Your task to perform on an android device: toggle show notifications on the lock screen Image 0: 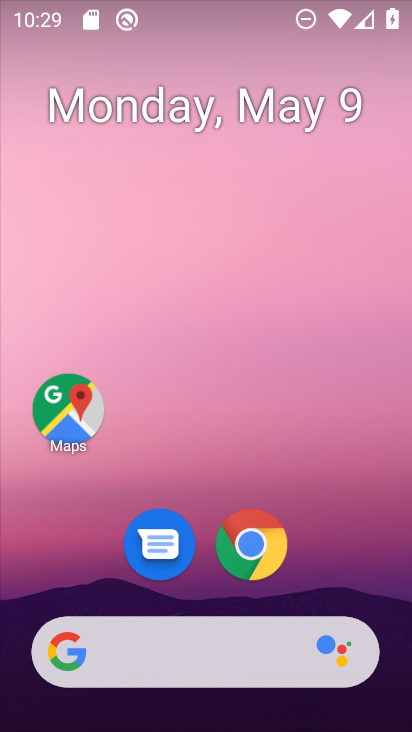
Step 0: drag from (331, 557) to (235, 209)
Your task to perform on an android device: toggle show notifications on the lock screen Image 1: 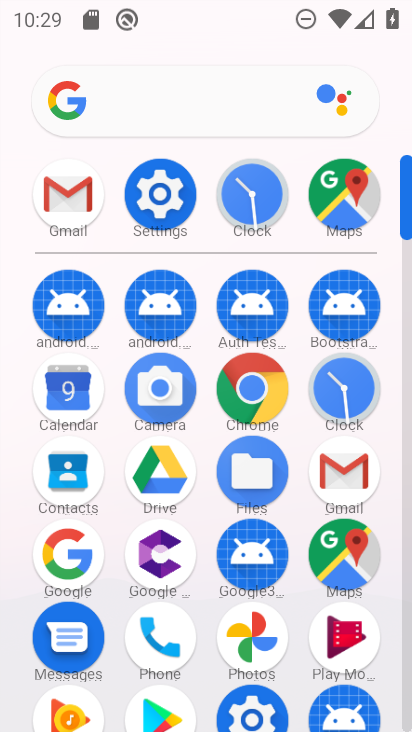
Step 1: click (169, 190)
Your task to perform on an android device: toggle show notifications on the lock screen Image 2: 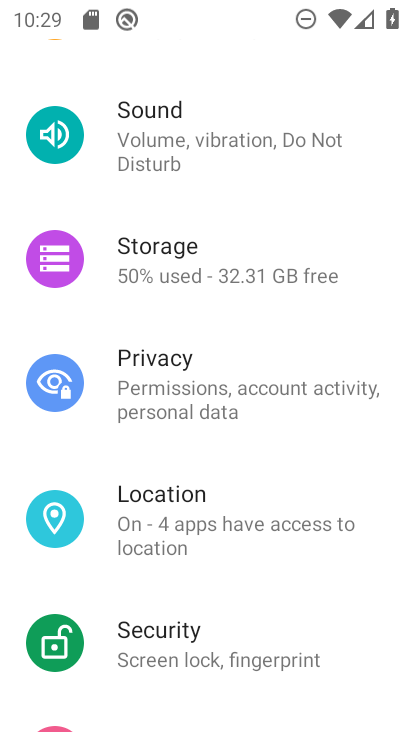
Step 2: drag from (199, 210) to (199, 724)
Your task to perform on an android device: toggle show notifications on the lock screen Image 3: 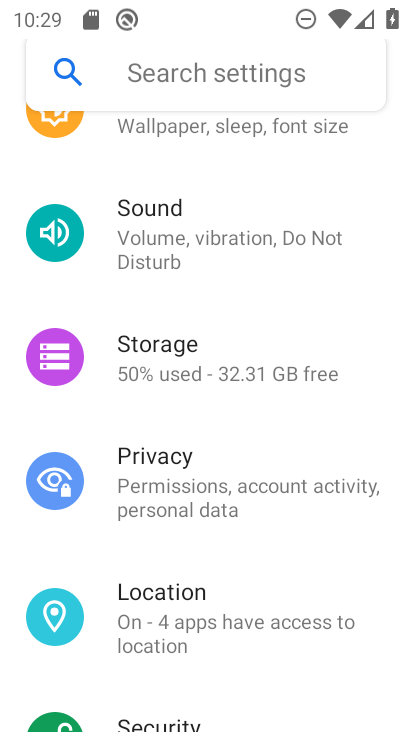
Step 3: drag from (165, 290) to (212, 687)
Your task to perform on an android device: toggle show notifications on the lock screen Image 4: 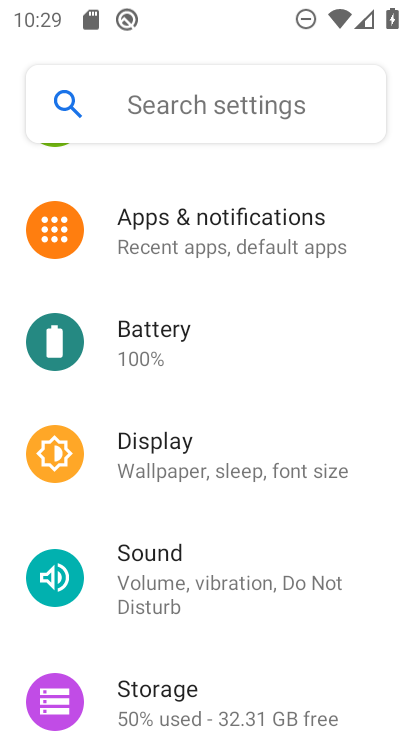
Step 4: click (220, 219)
Your task to perform on an android device: toggle show notifications on the lock screen Image 5: 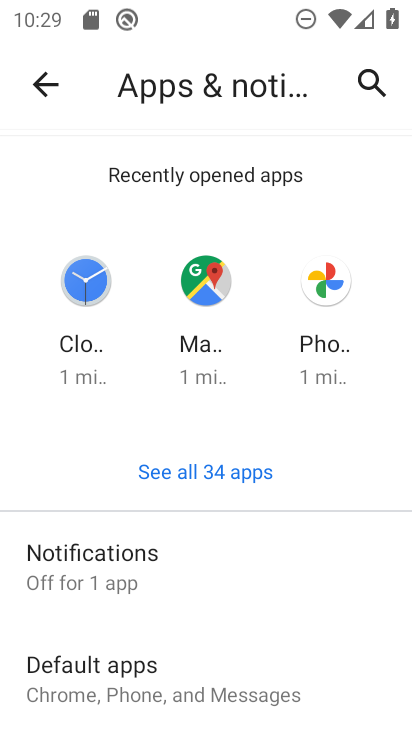
Step 5: click (101, 547)
Your task to perform on an android device: toggle show notifications on the lock screen Image 6: 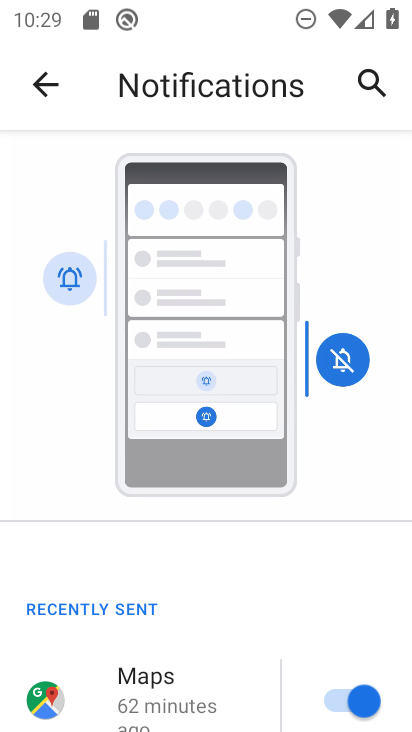
Step 6: drag from (268, 561) to (220, 273)
Your task to perform on an android device: toggle show notifications on the lock screen Image 7: 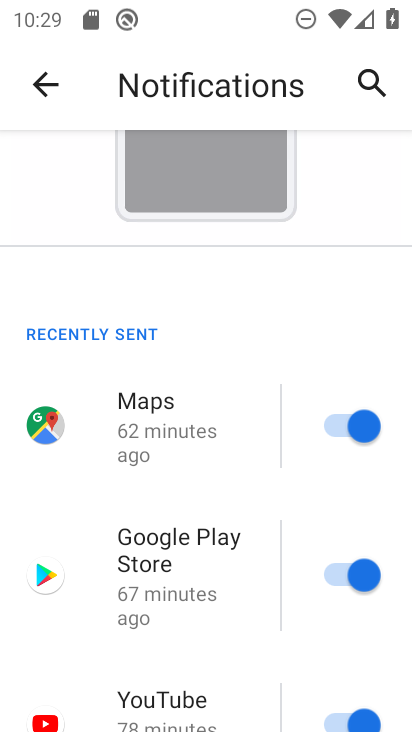
Step 7: drag from (234, 637) to (134, 228)
Your task to perform on an android device: toggle show notifications on the lock screen Image 8: 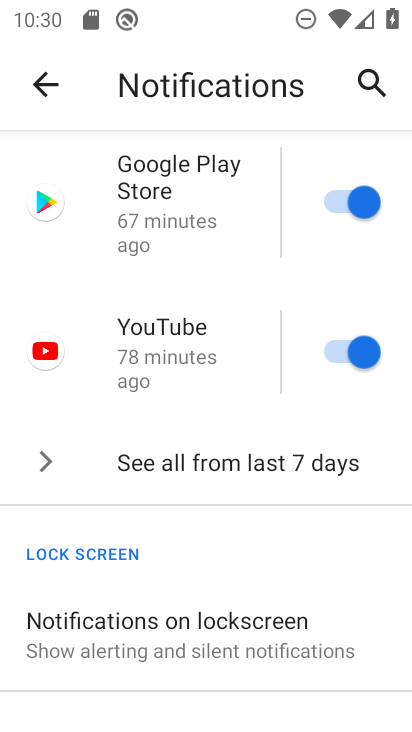
Step 8: click (180, 622)
Your task to perform on an android device: toggle show notifications on the lock screen Image 9: 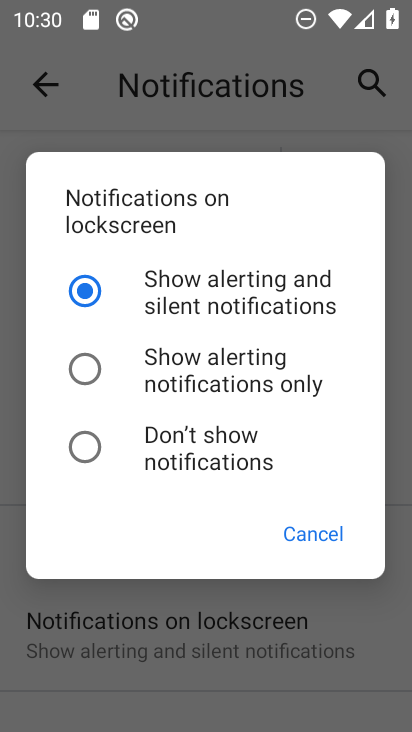
Step 9: click (77, 445)
Your task to perform on an android device: toggle show notifications on the lock screen Image 10: 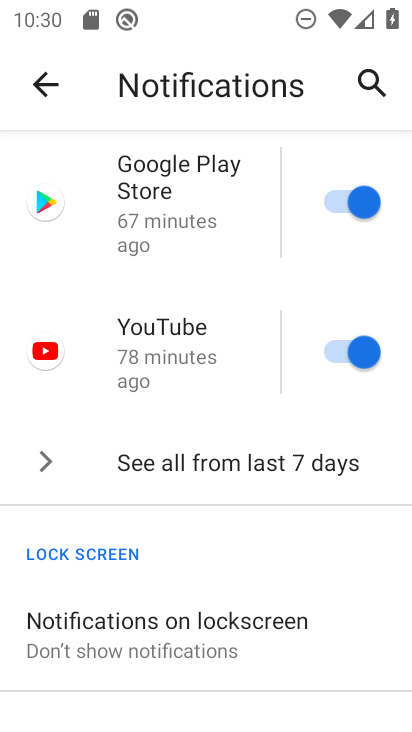
Step 10: task complete